Your task to perform on an android device: add a label to a message in the gmail app Image 0: 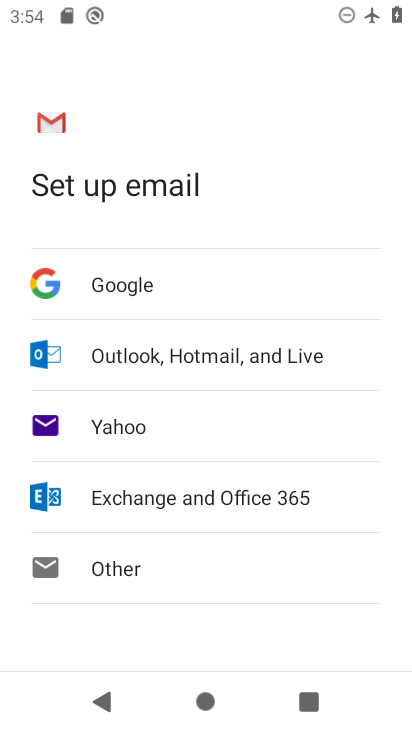
Step 0: press home button
Your task to perform on an android device: add a label to a message in the gmail app Image 1: 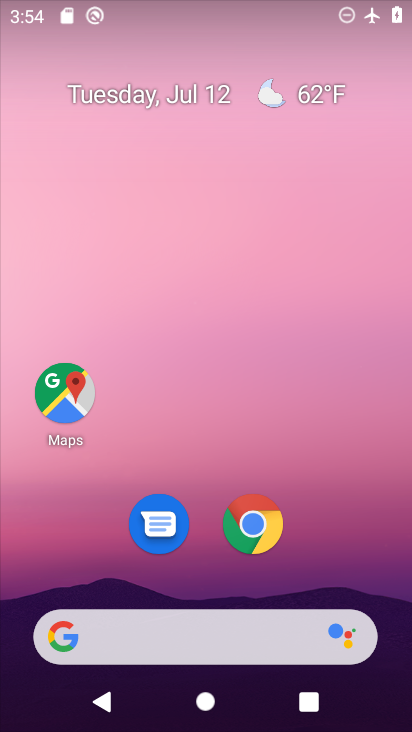
Step 1: drag from (355, 496) to (334, 64)
Your task to perform on an android device: add a label to a message in the gmail app Image 2: 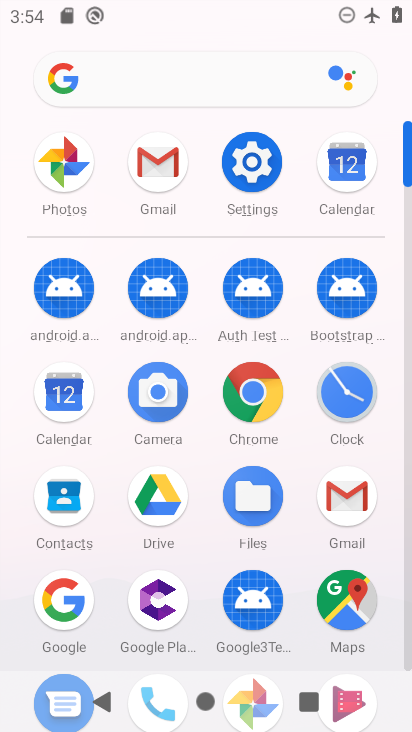
Step 2: click (166, 158)
Your task to perform on an android device: add a label to a message in the gmail app Image 3: 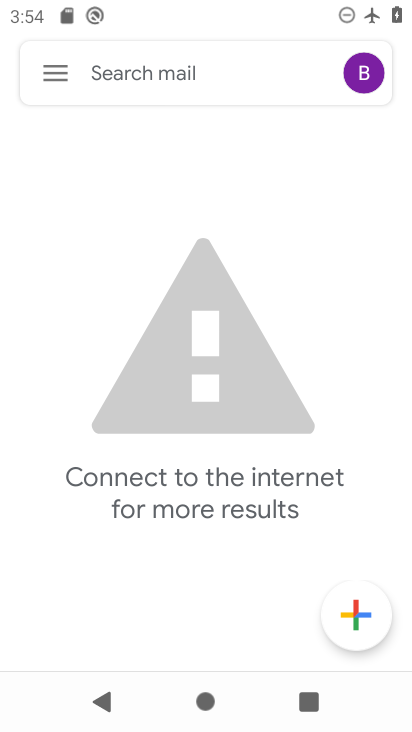
Step 3: click (60, 72)
Your task to perform on an android device: add a label to a message in the gmail app Image 4: 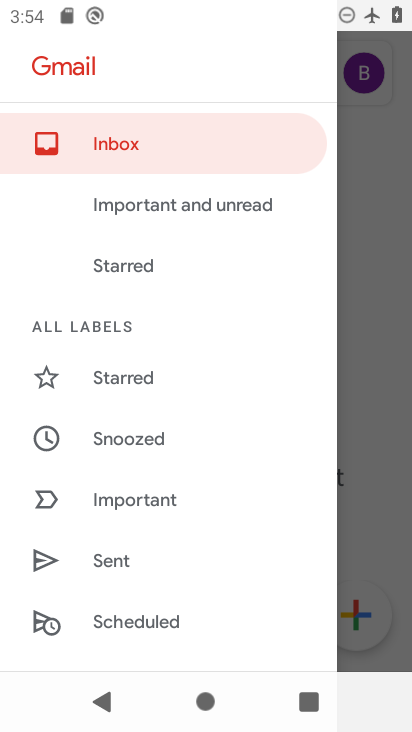
Step 4: drag from (179, 539) to (210, 113)
Your task to perform on an android device: add a label to a message in the gmail app Image 5: 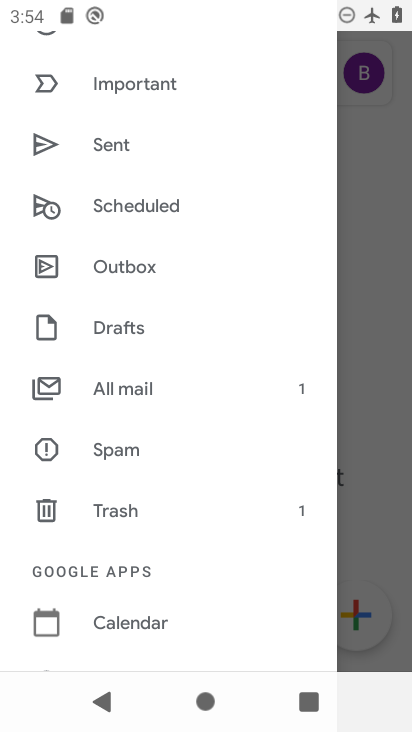
Step 5: click (140, 384)
Your task to perform on an android device: add a label to a message in the gmail app Image 6: 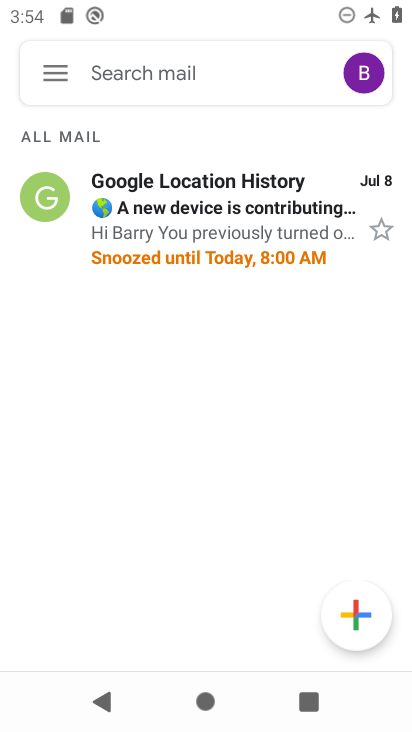
Step 6: click (279, 207)
Your task to perform on an android device: add a label to a message in the gmail app Image 7: 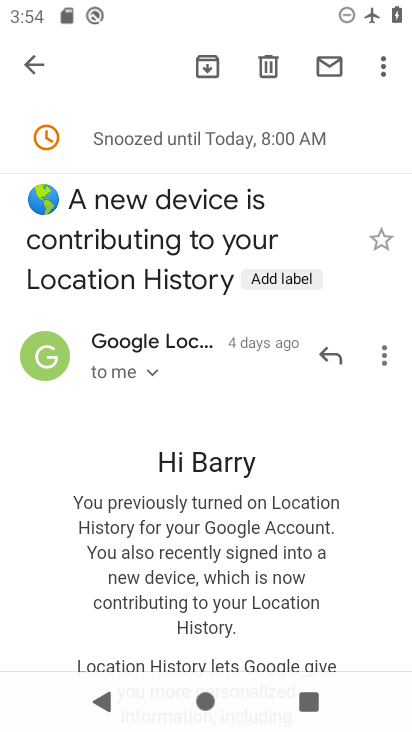
Step 7: click (379, 59)
Your task to perform on an android device: add a label to a message in the gmail app Image 8: 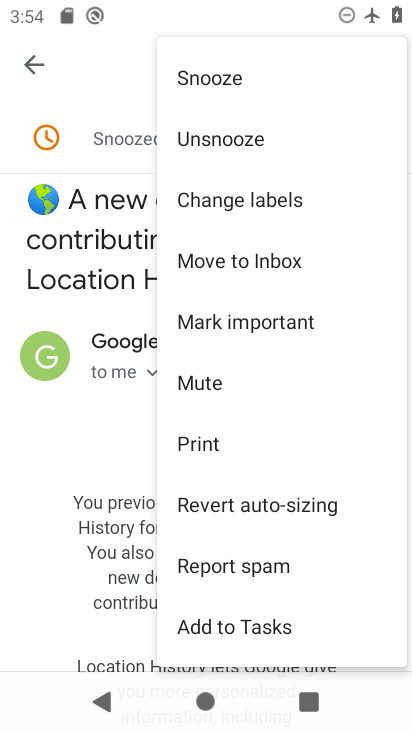
Step 8: click (299, 195)
Your task to perform on an android device: add a label to a message in the gmail app Image 9: 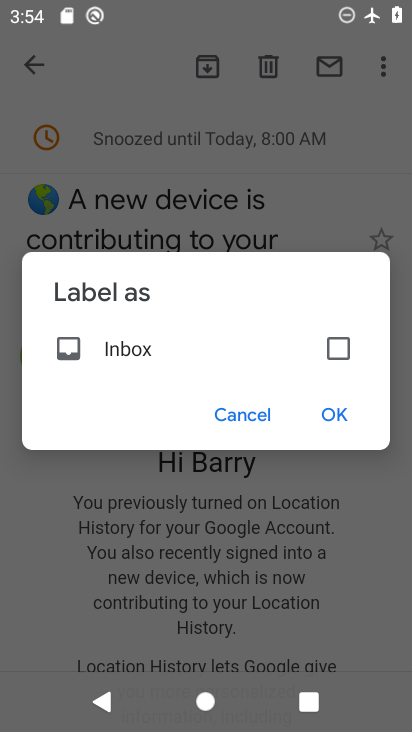
Step 9: click (339, 352)
Your task to perform on an android device: add a label to a message in the gmail app Image 10: 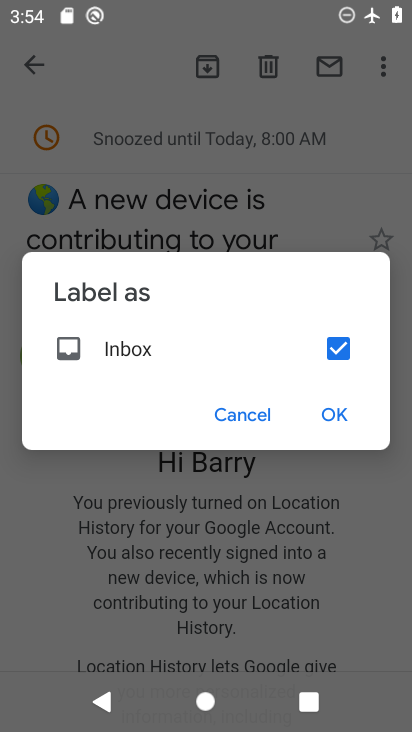
Step 10: click (342, 413)
Your task to perform on an android device: add a label to a message in the gmail app Image 11: 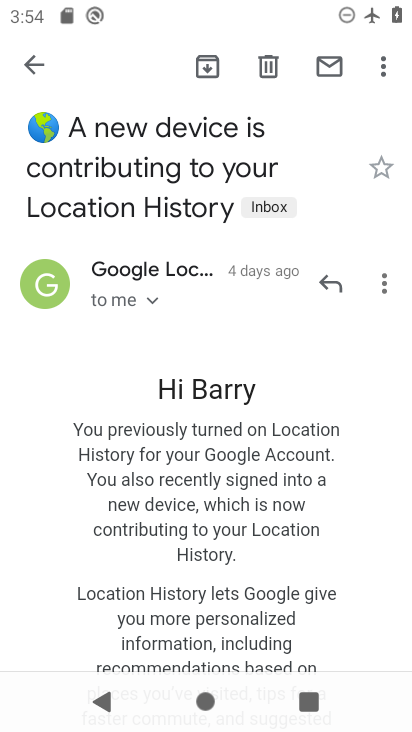
Step 11: task complete